Your task to perform on an android device: toggle priority inbox in the gmail app Image 0: 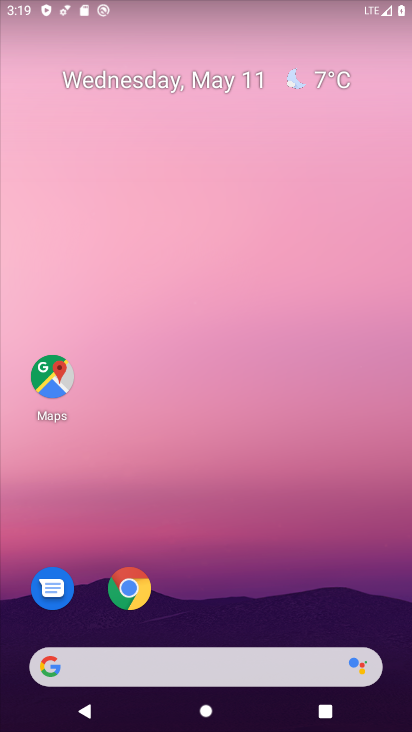
Step 0: drag from (216, 729) to (209, 156)
Your task to perform on an android device: toggle priority inbox in the gmail app Image 1: 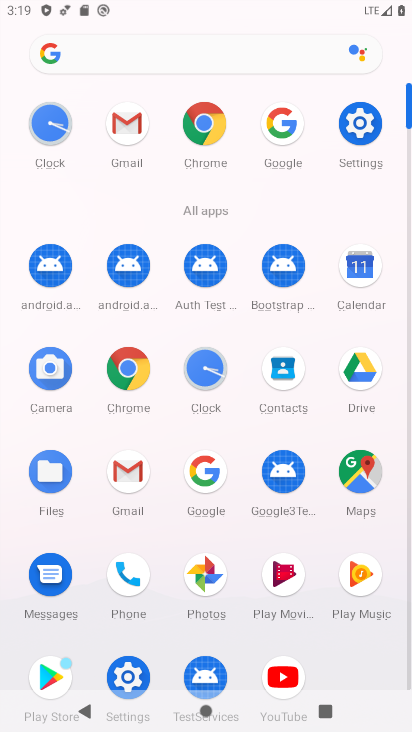
Step 1: click (134, 465)
Your task to perform on an android device: toggle priority inbox in the gmail app Image 2: 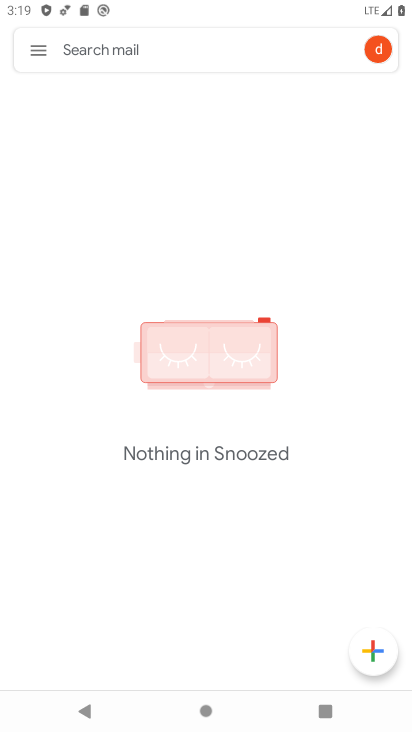
Step 2: click (35, 50)
Your task to perform on an android device: toggle priority inbox in the gmail app Image 3: 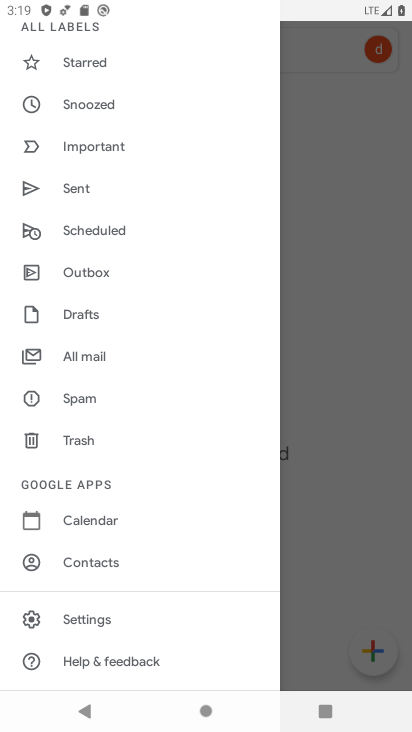
Step 3: click (100, 620)
Your task to perform on an android device: toggle priority inbox in the gmail app Image 4: 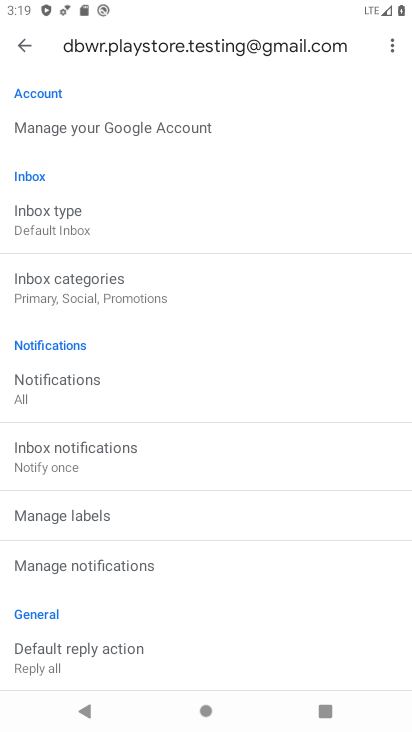
Step 4: click (47, 223)
Your task to perform on an android device: toggle priority inbox in the gmail app Image 5: 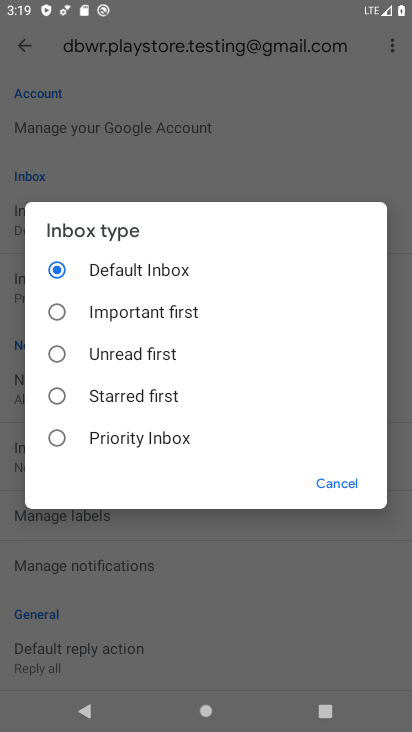
Step 5: click (58, 434)
Your task to perform on an android device: toggle priority inbox in the gmail app Image 6: 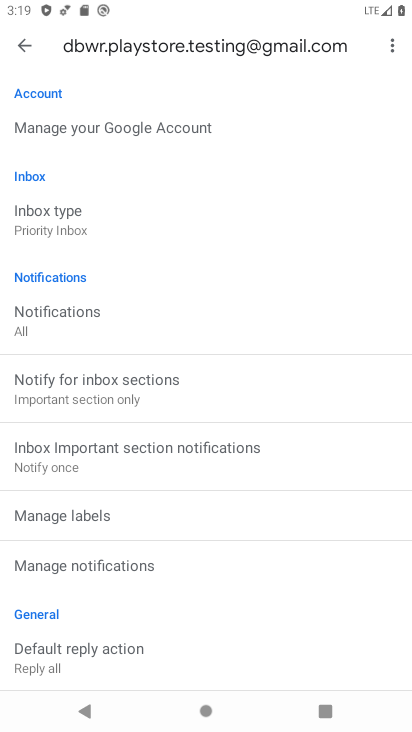
Step 6: task complete